Your task to perform on an android device: Go to Maps Image 0: 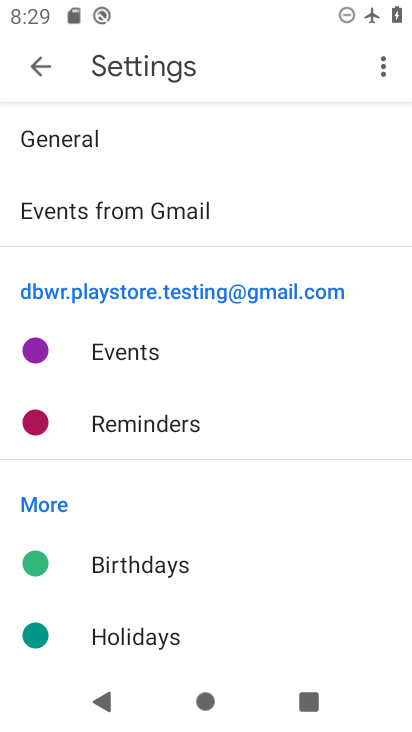
Step 0: press home button
Your task to perform on an android device: Go to Maps Image 1: 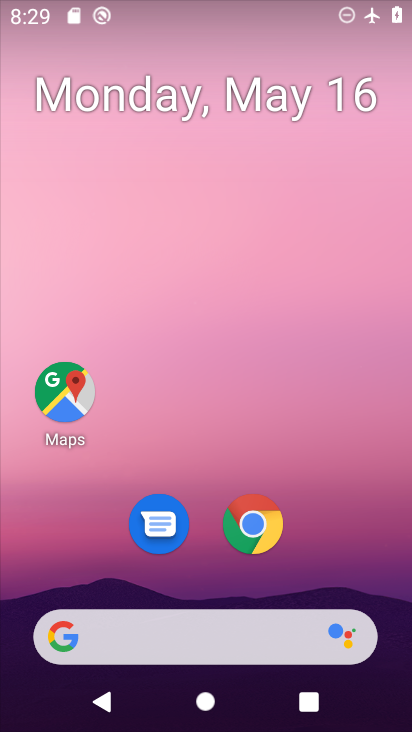
Step 1: click (65, 400)
Your task to perform on an android device: Go to Maps Image 2: 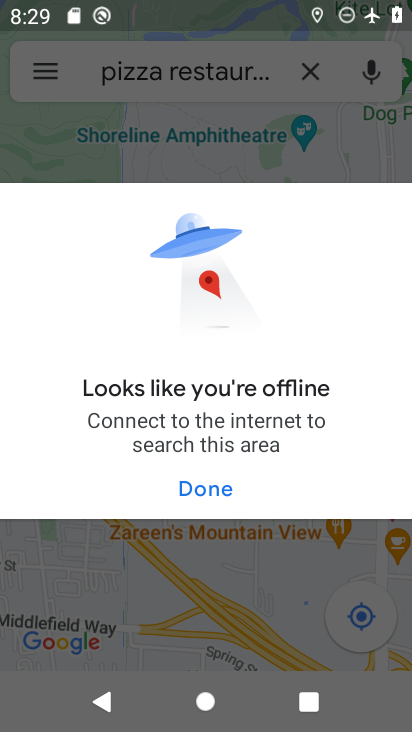
Step 2: task complete